Your task to perform on an android device: Set an alarm for 11am Image 0: 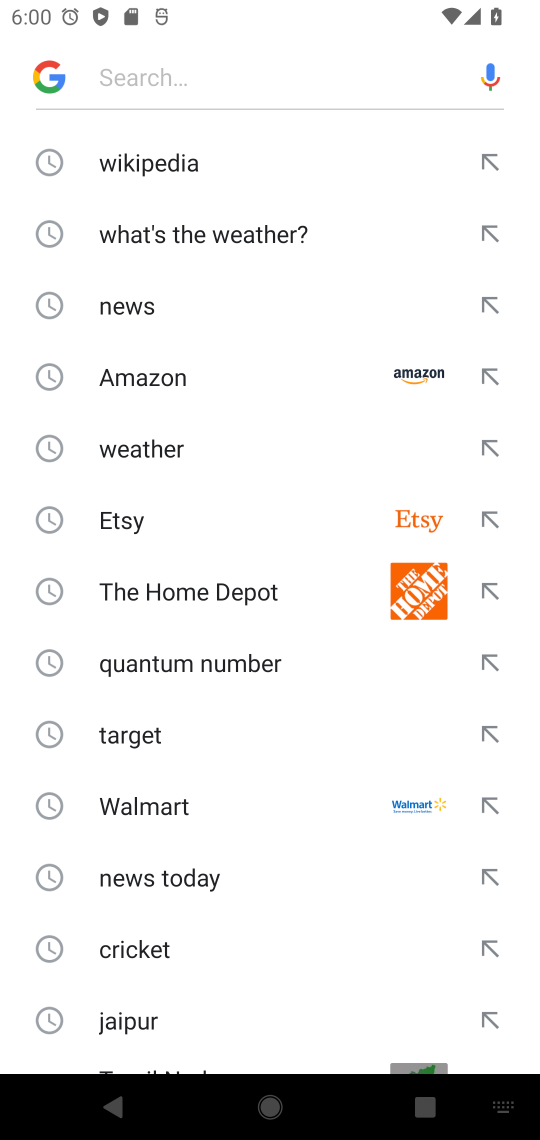
Step 0: press home button
Your task to perform on an android device: Set an alarm for 11am Image 1: 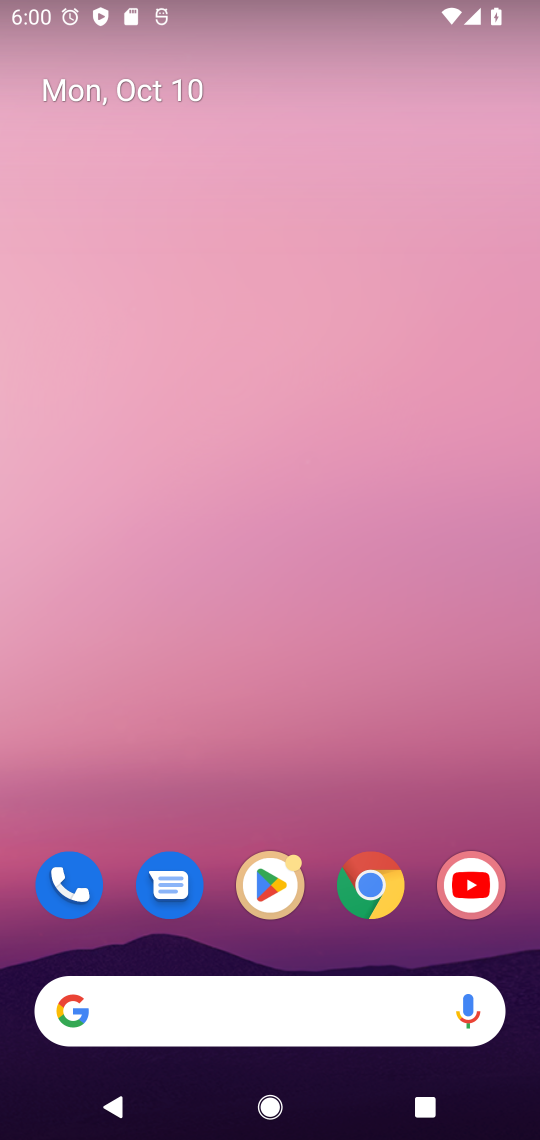
Step 1: drag from (300, 959) to (260, 100)
Your task to perform on an android device: Set an alarm for 11am Image 2: 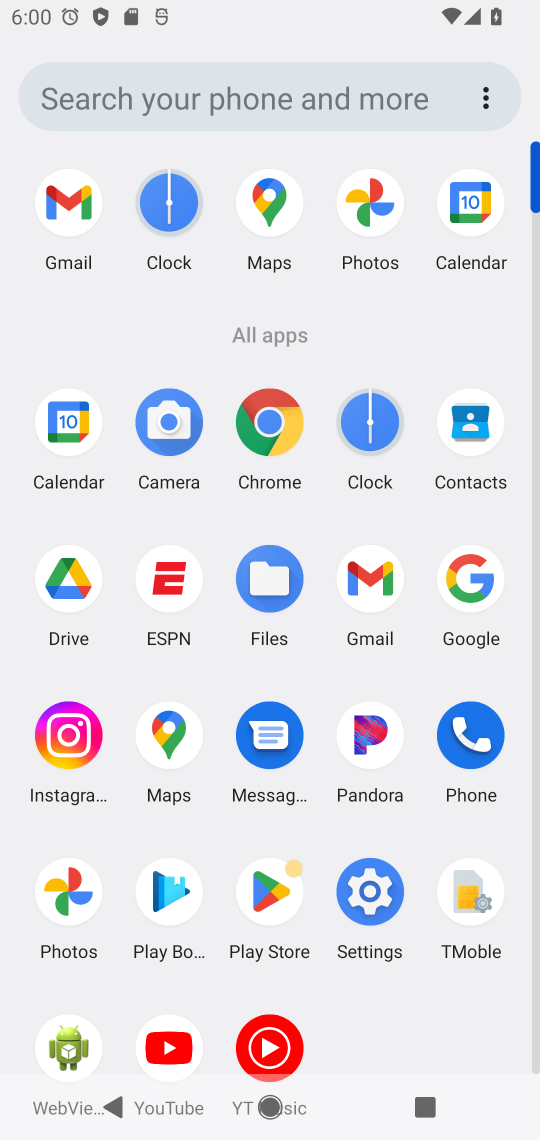
Step 2: click (173, 196)
Your task to perform on an android device: Set an alarm for 11am Image 3: 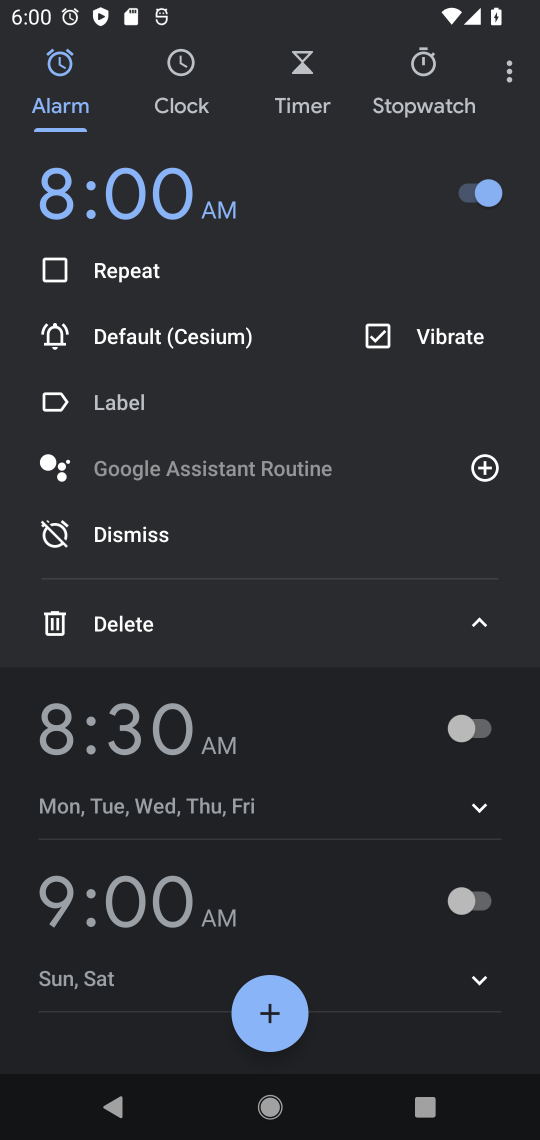
Step 3: click (283, 1001)
Your task to perform on an android device: Set an alarm for 11am Image 4: 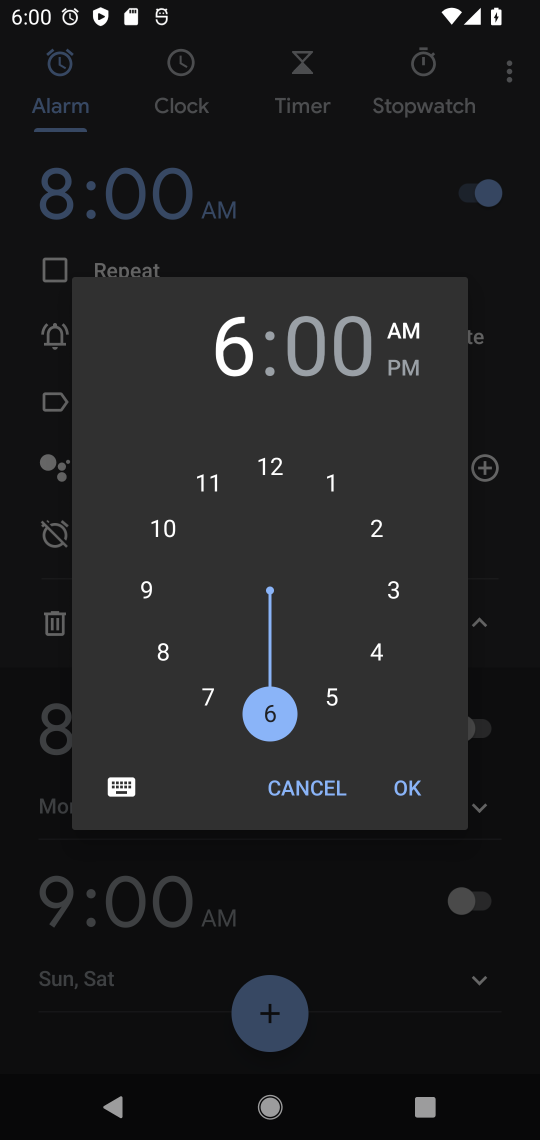
Step 4: click (205, 482)
Your task to perform on an android device: Set an alarm for 11am Image 5: 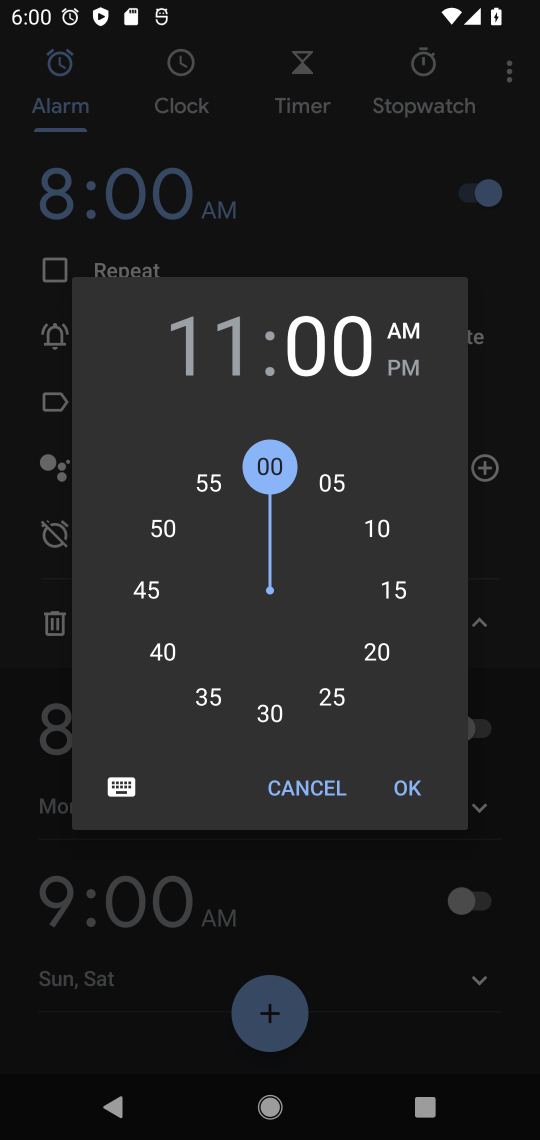
Step 5: click (272, 464)
Your task to perform on an android device: Set an alarm for 11am Image 6: 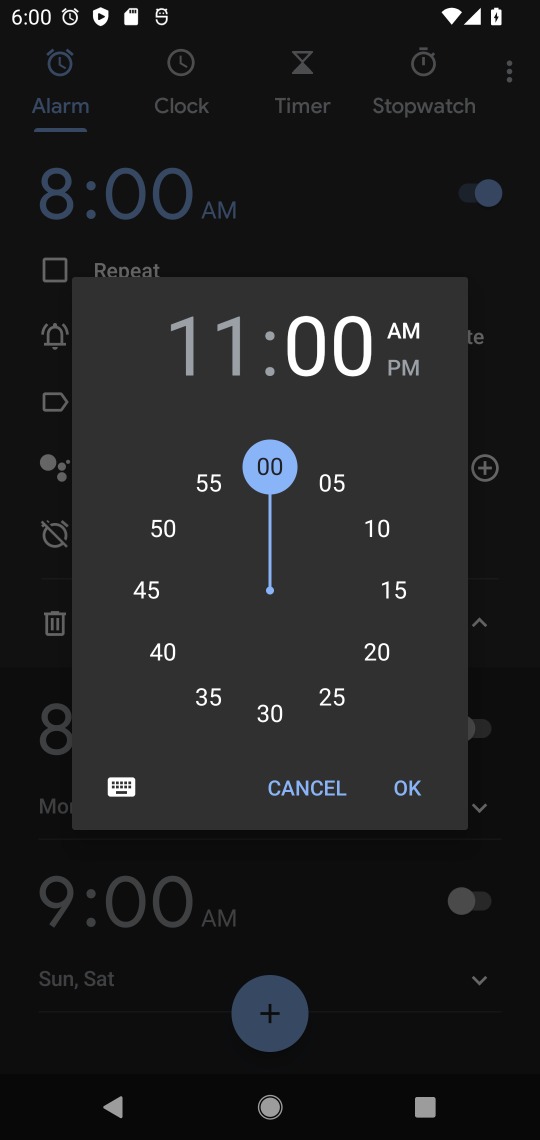
Step 6: click (410, 783)
Your task to perform on an android device: Set an alarm for 11am Image 7: 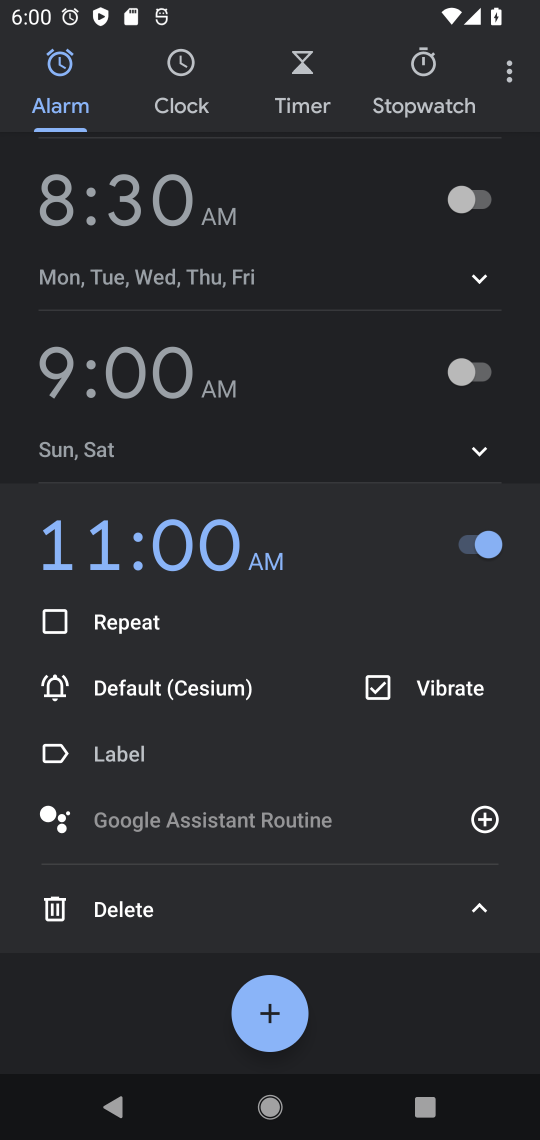
Step 7: task complete